Your task to perform on an android device: Play the new Beyonce video on YouTube Image 0: 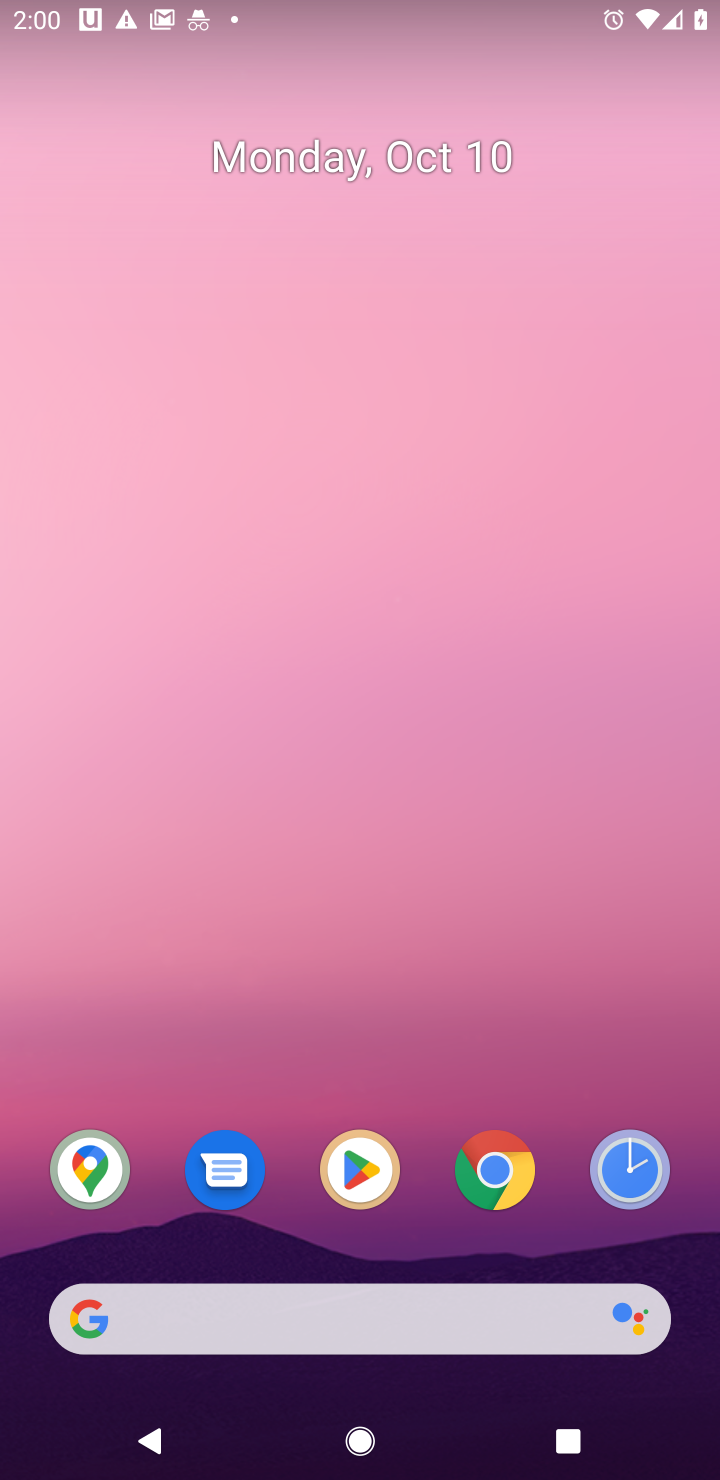
Step 0: drag from (259, 935) to (198, 297)
Your task to perform on an android device: Play the new Beyonce video on YouTube Image 1: 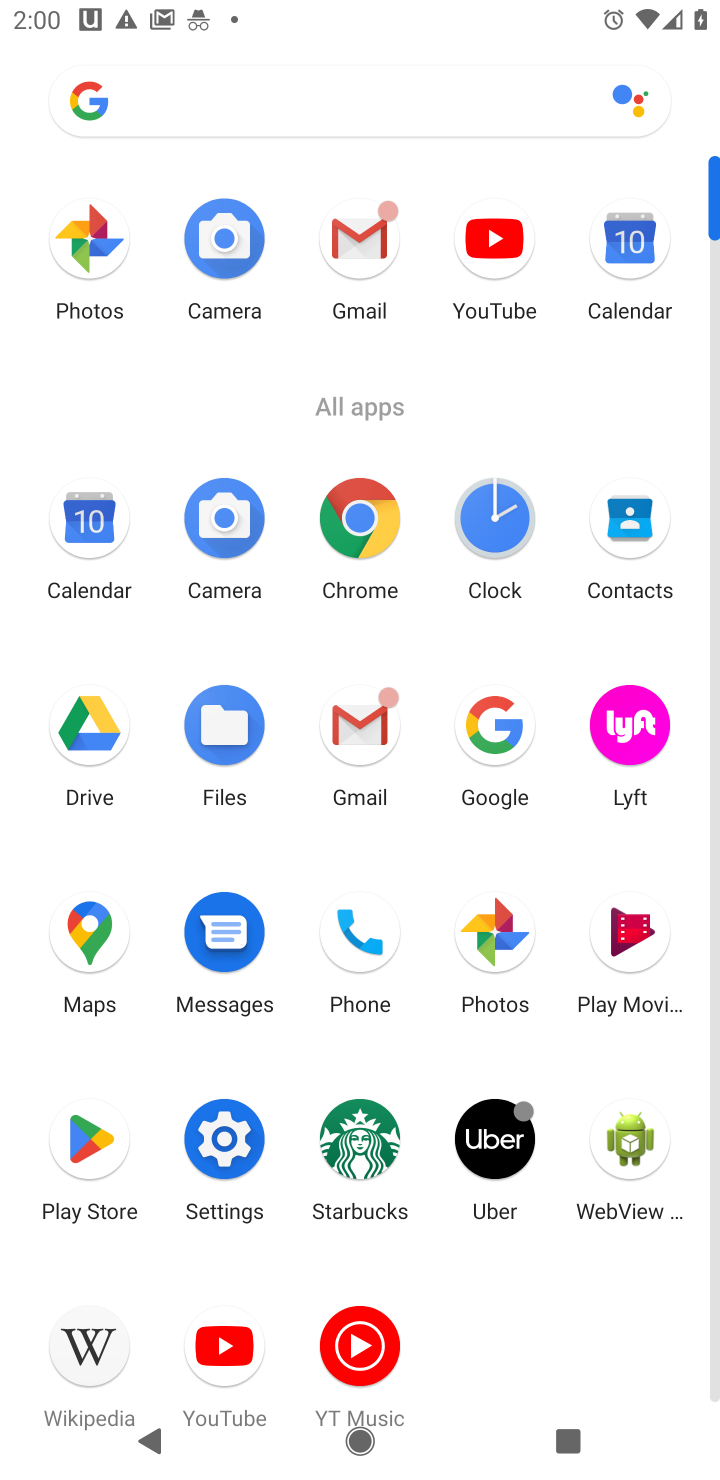
Step 1: click (506, 246)
Your task to perform on an android device: Play the new Beyonce video on YouTube Image 2: 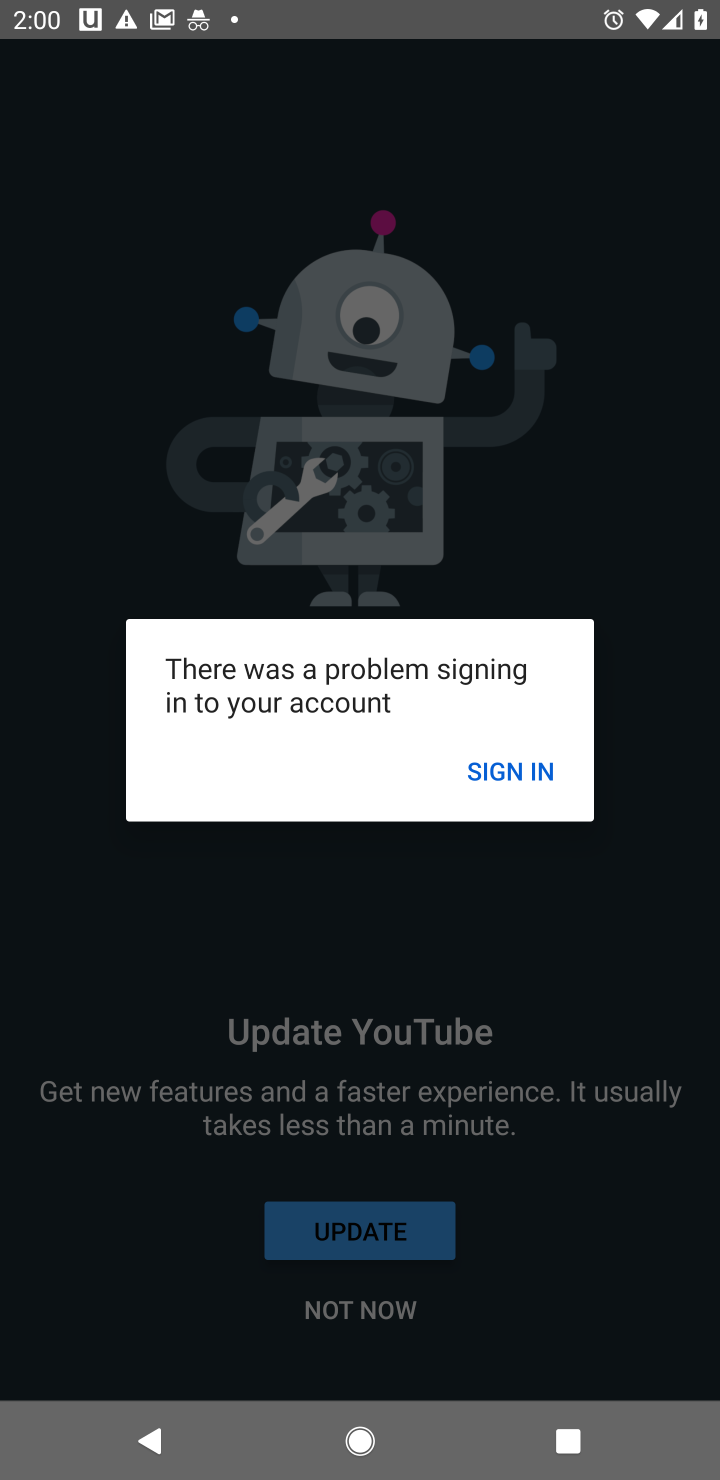
Step 2: click (497, 764)
Your task to perform on an android device: Play the new Beyonce video on YouTube Image 3: 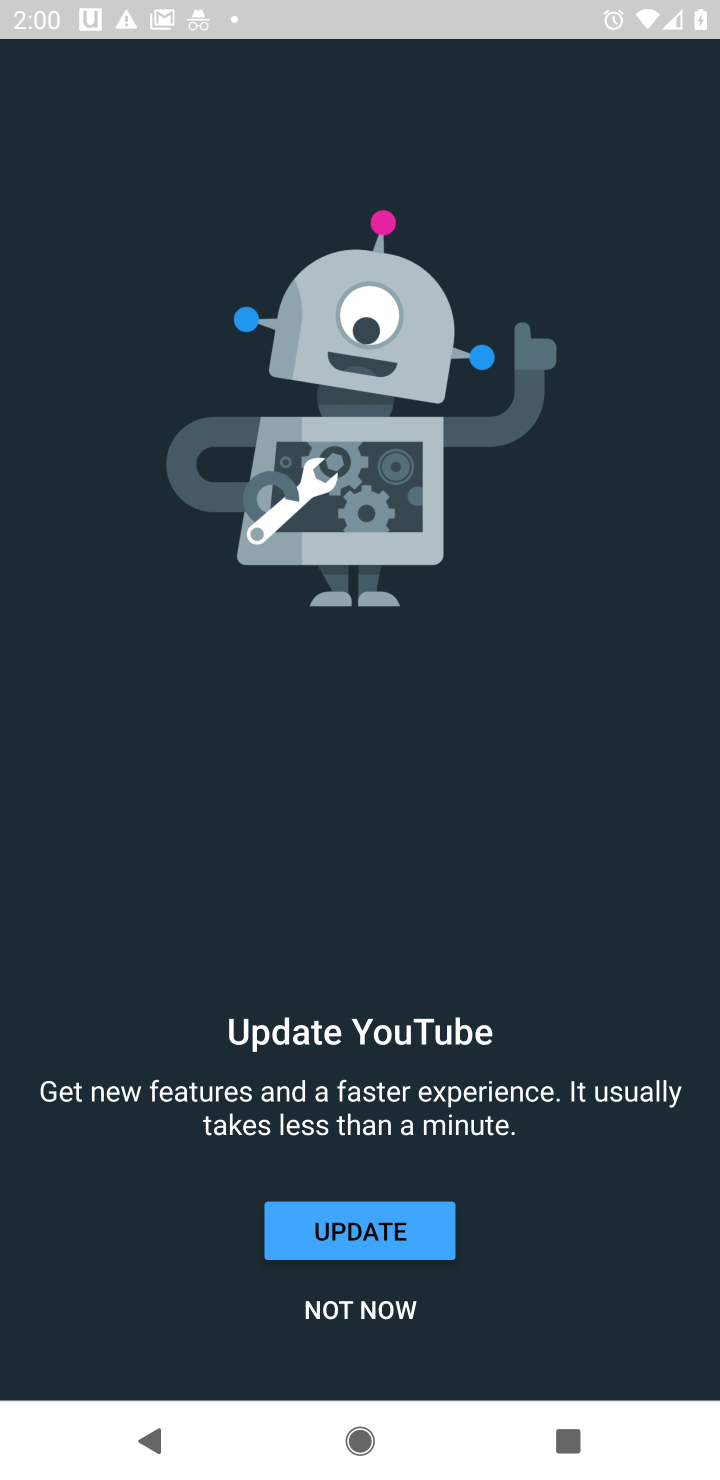
Step 3: click (327, 1312)
Your task to perform on an android device: Play the new Beyonce video on YouTube Image 4: 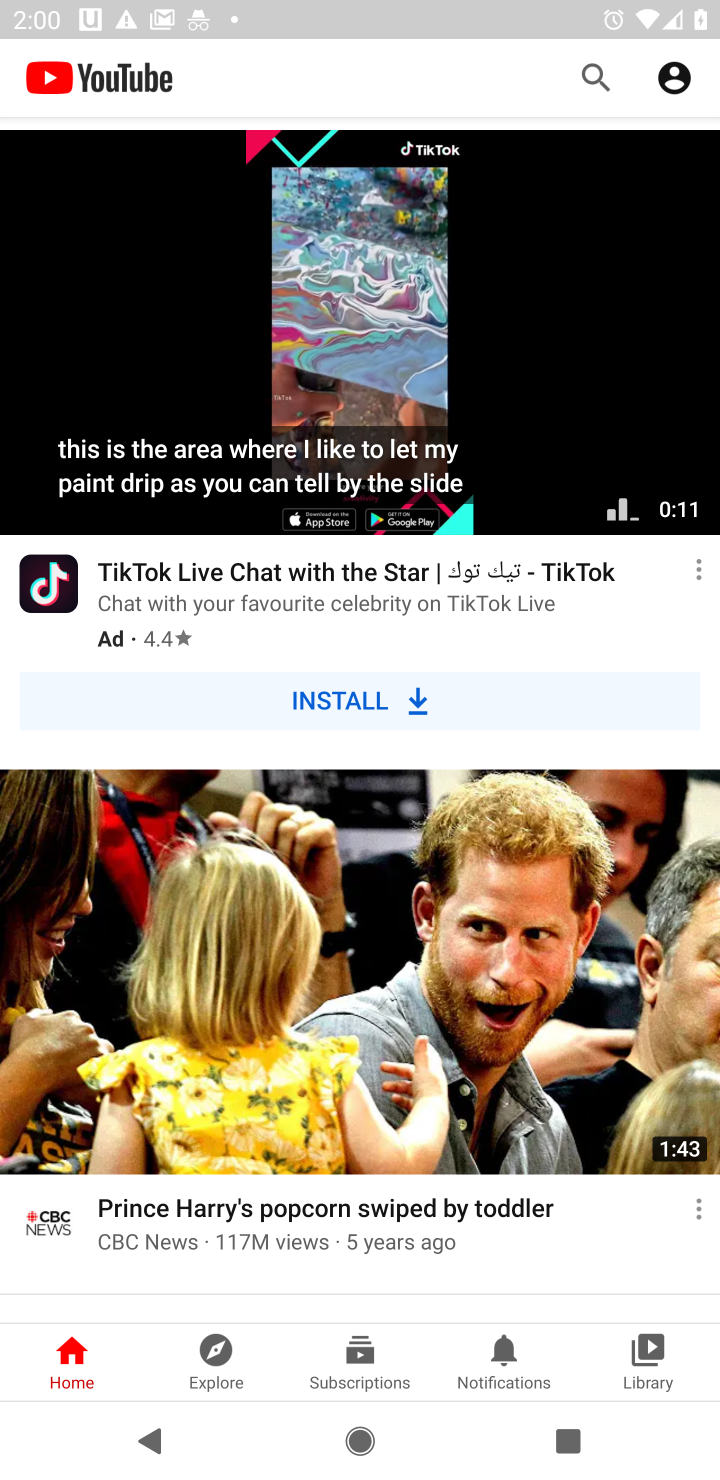
Step 4: click (591, 68)
Your task to perform on an android device: Play the new Beyonce video on YouTube Image 5: 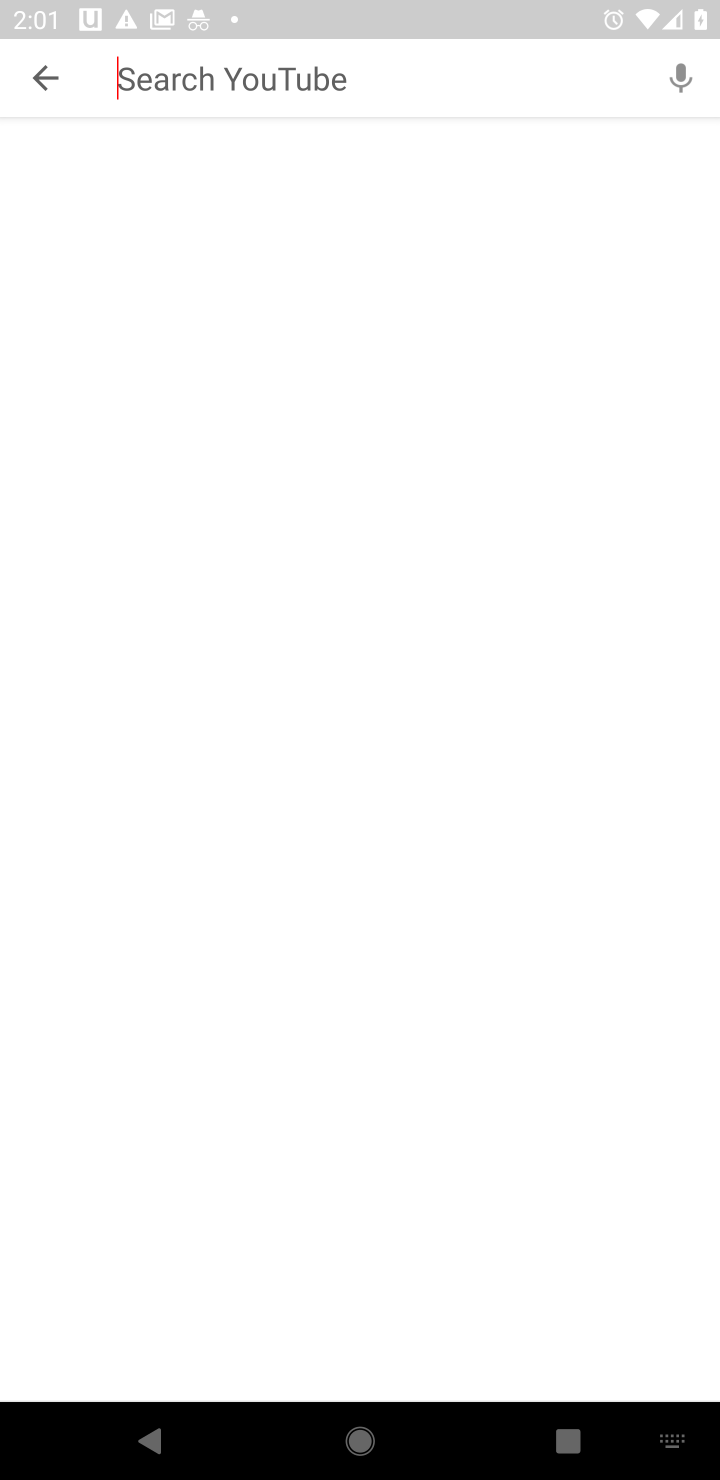
Step 5: type "new beyonce video"
Your task to perform on an android device: Play the new Beyonce video on YouTube Image 6: 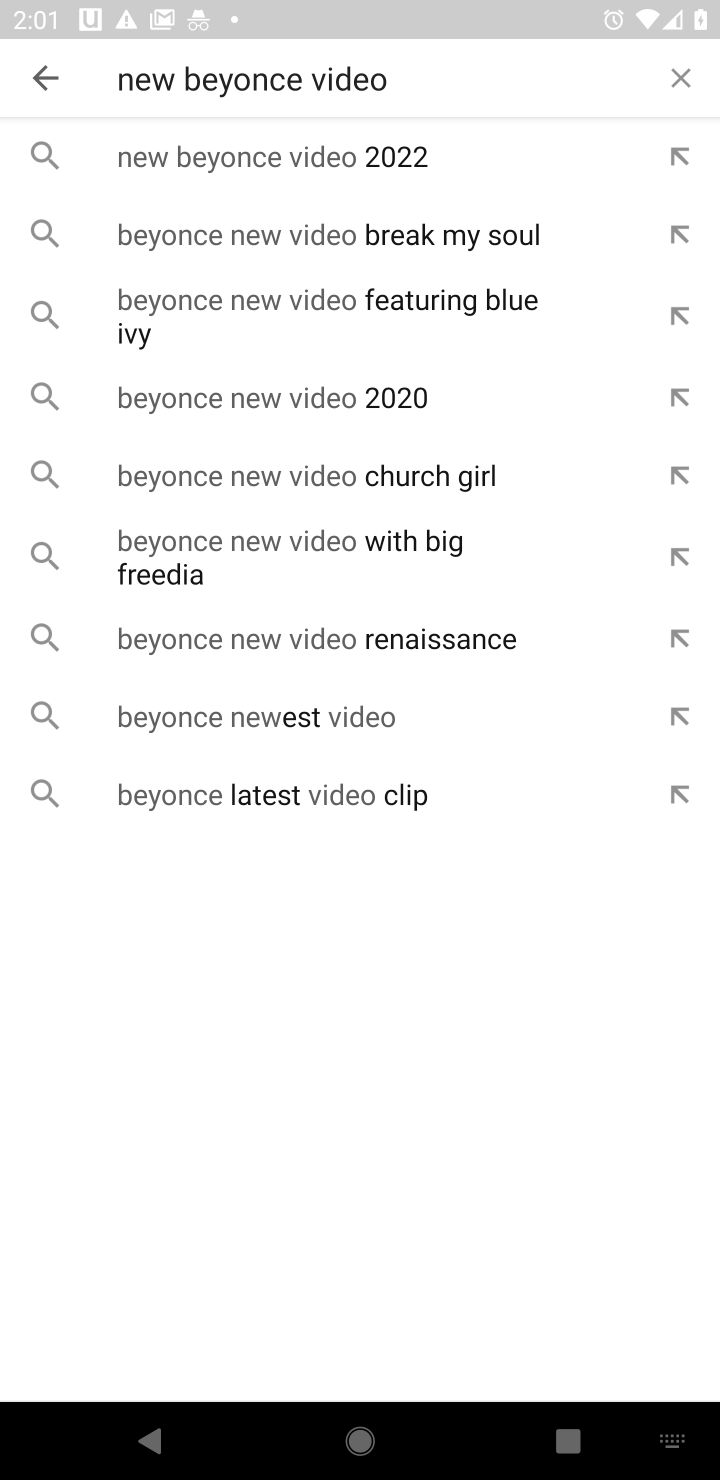
Step 6: click (292, 144)
Your task to perform on an android device: Play the new Beyonce video on YouTube Image 7: 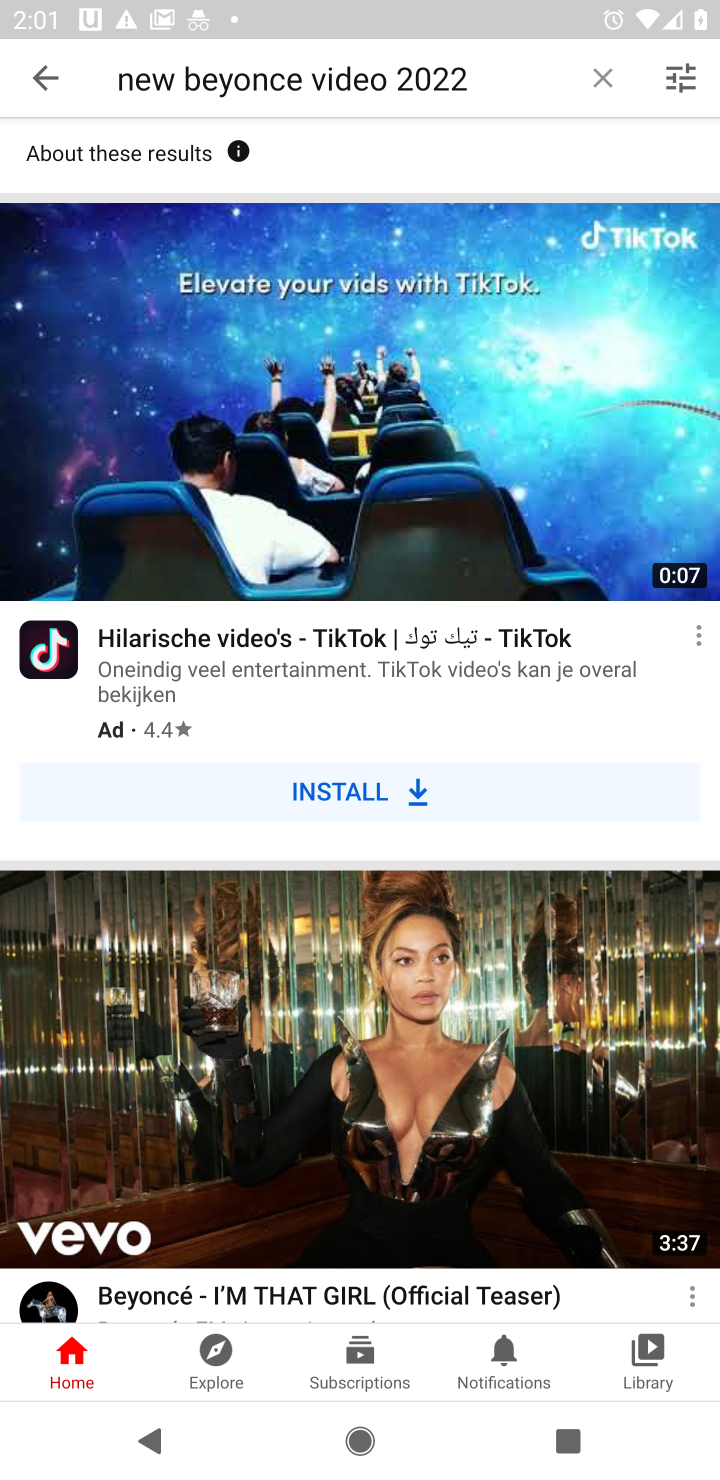
Step 7: click (261, 1086)
Your task to perform on an android device: Play the new Beyonce video on YouTube Image 8: 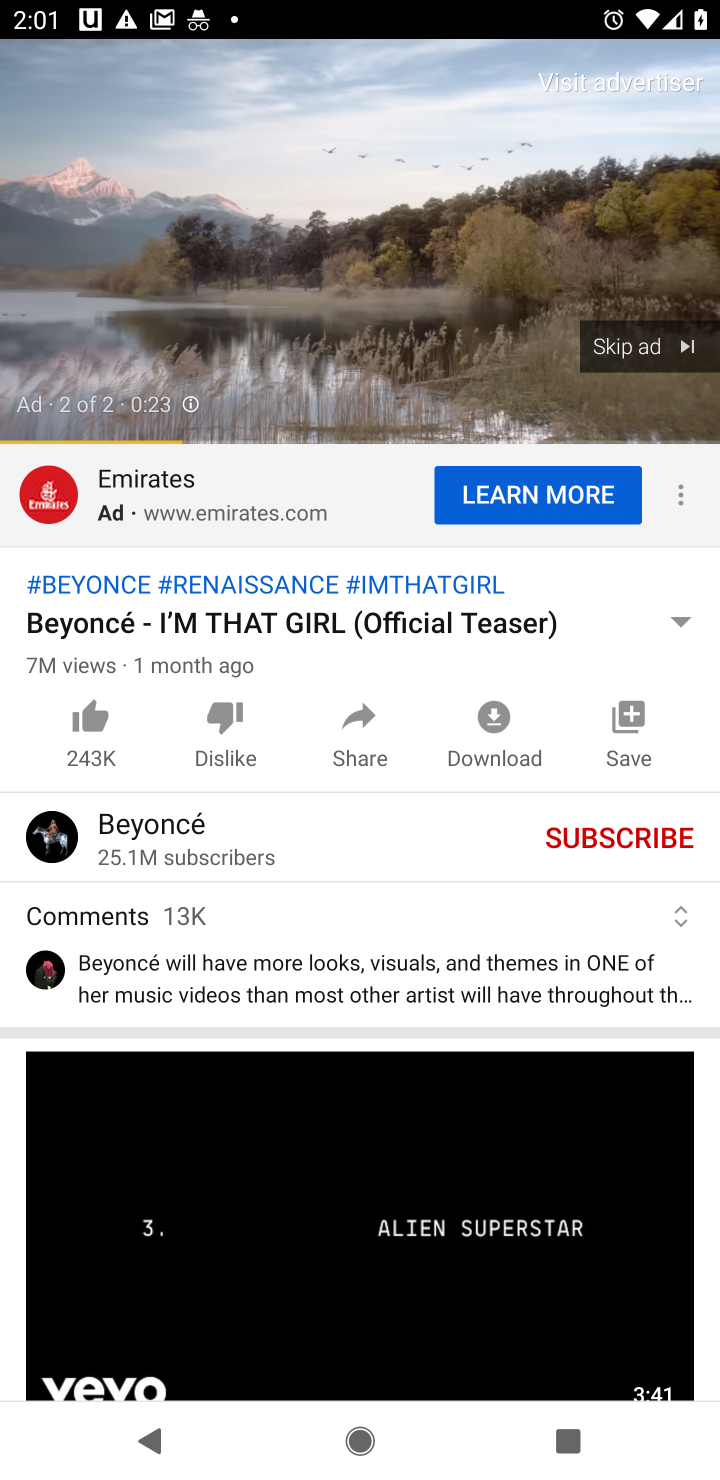
Step 8: click (671, 360)
Your task to perform on an android device: Play the new Beyonce video on YouTube Image 9: 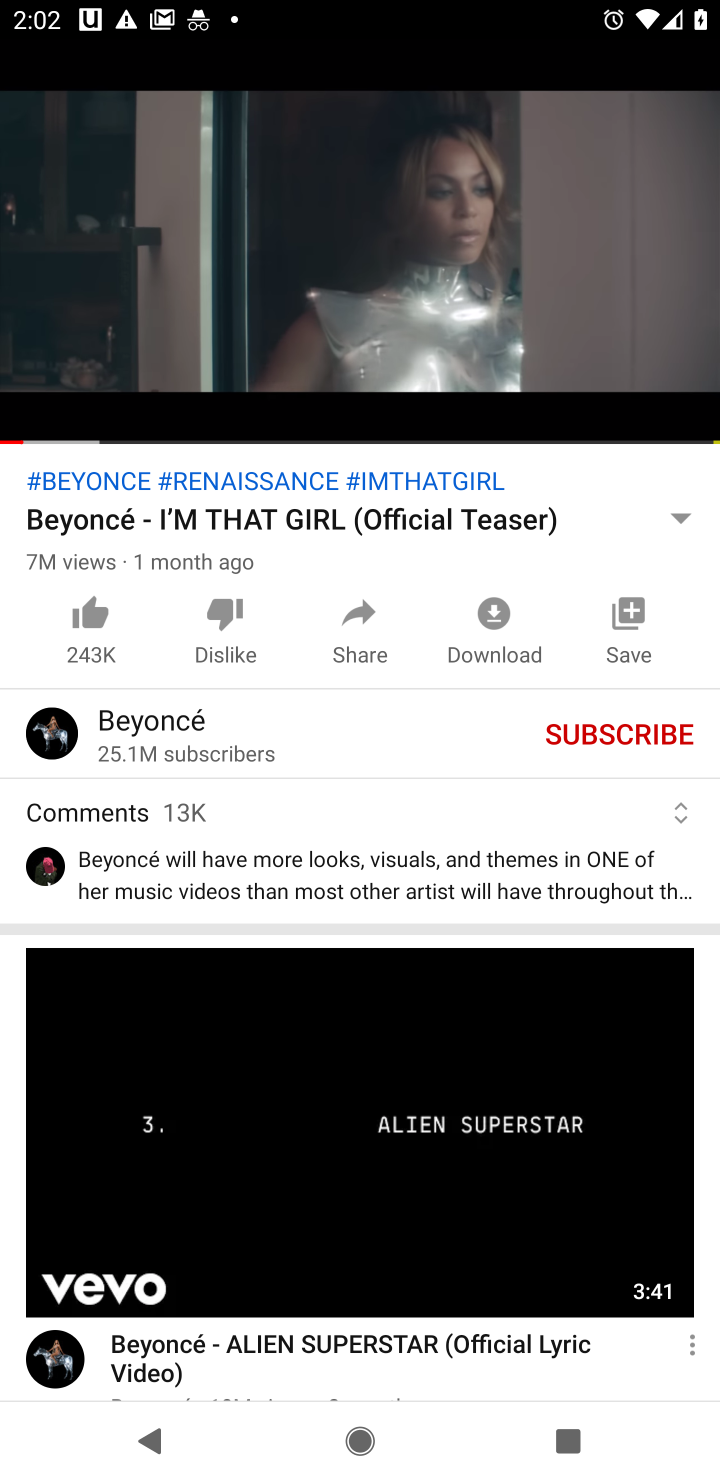
Step 9: task complete